Your task to perform on an android device: Go to CNN.com Image 0: 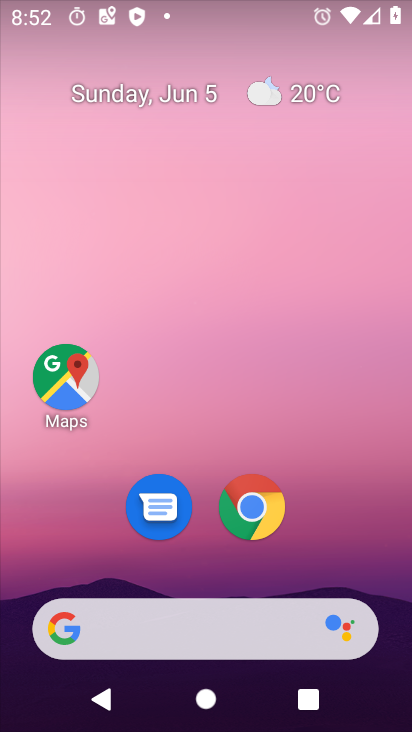
Step 0: drag from (321, 547) to (245, 56)
Your task to perform on an android device: Go to CNN.com Image 1: 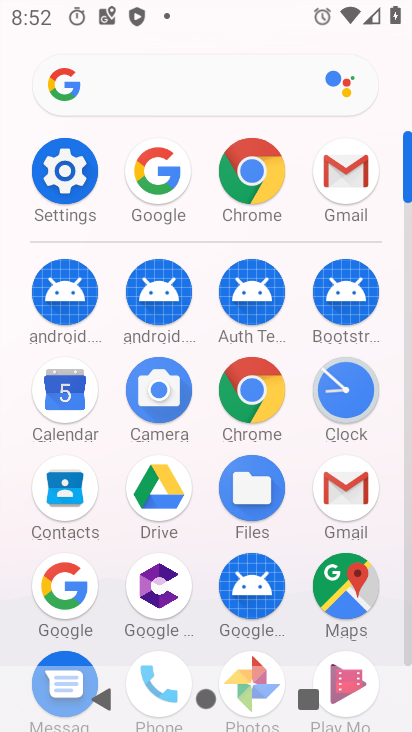
Step 1: drag from (8, 557) to (19, 260)
Your task to perform on an android device: Go to CNN.com Image 2: 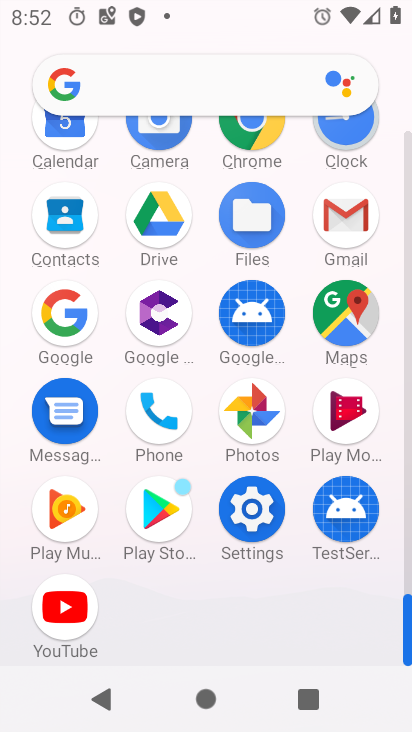
Step 2: drag from (26, 216) to (10, 424)
Your task to perform on an android device: Go to CNN.com Image 3: 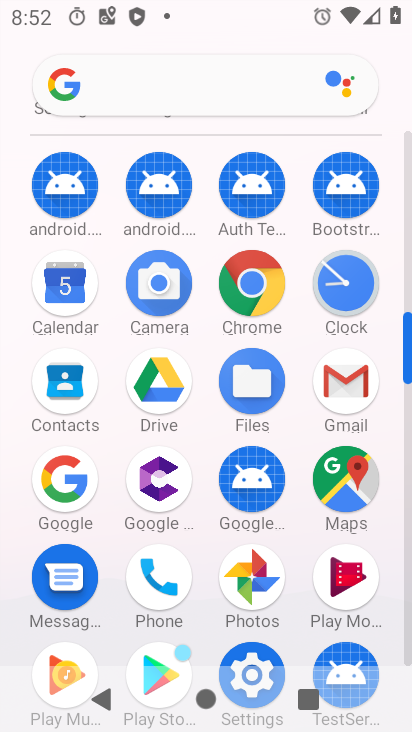
Step 3: click (249, 276)
Your task to perform on an android device: Go to CNN.com Image 4: 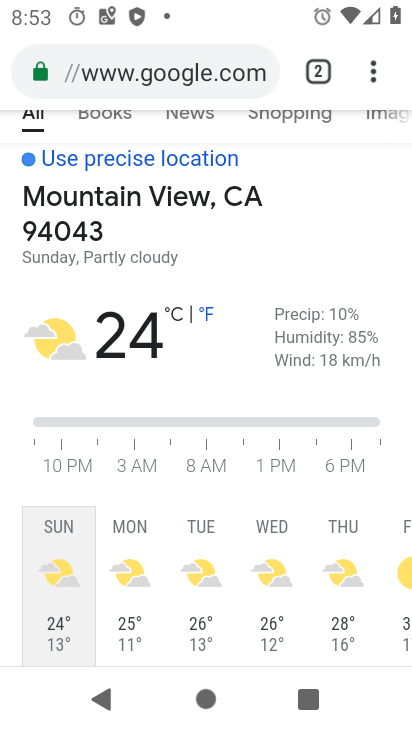
Step 4: click (188, 68)
Your task to perform on an android device: Go to CNN.com Image 5: 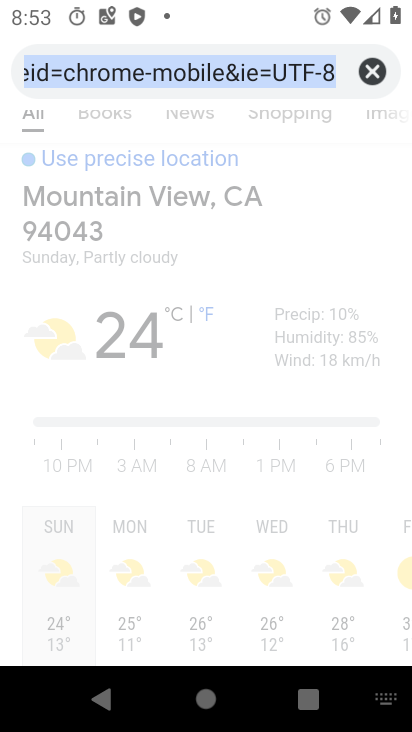
Step 5: click (371, 76)
Your task to perform on an android device: Go to CNN.com Image 6: 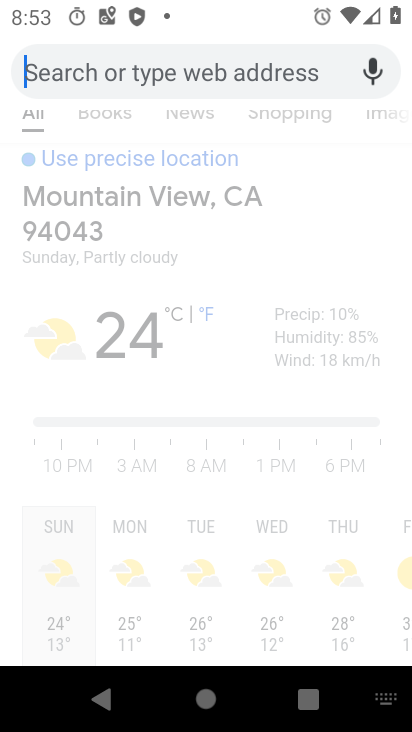
Step 6: type "CNN.com"
Your task to perform on an android device: Go to CNN.com Image 7: 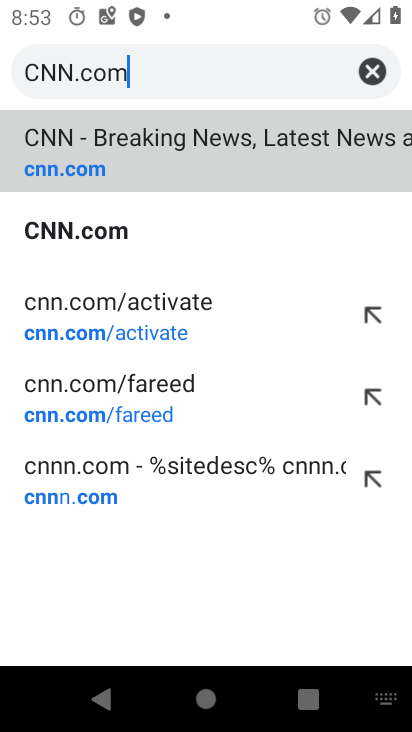
Step 7: type ""
Your task to perform on an android device: Go to CNN.com Image 8: 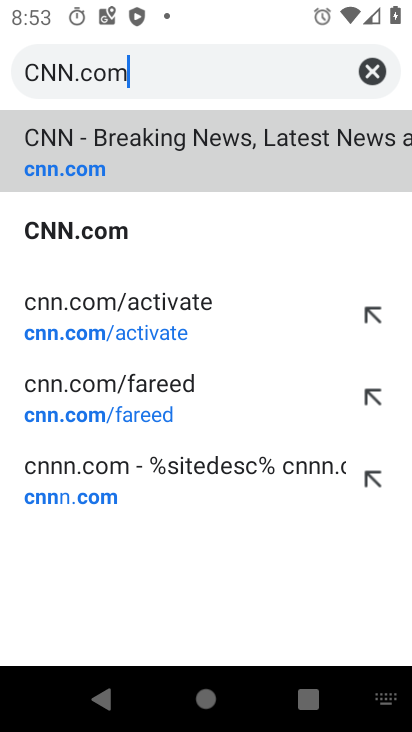
Step 8: click (154, 149)
Your task to perform on an android device: Go to CNN.com Image 9: 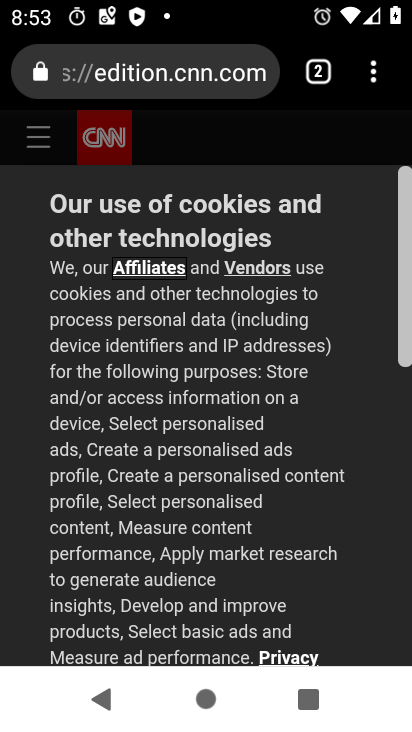
Step 9: drag from (297, 563) to (297, 202)
Your task to perform on an android device: Go to CNN.com Image 10: 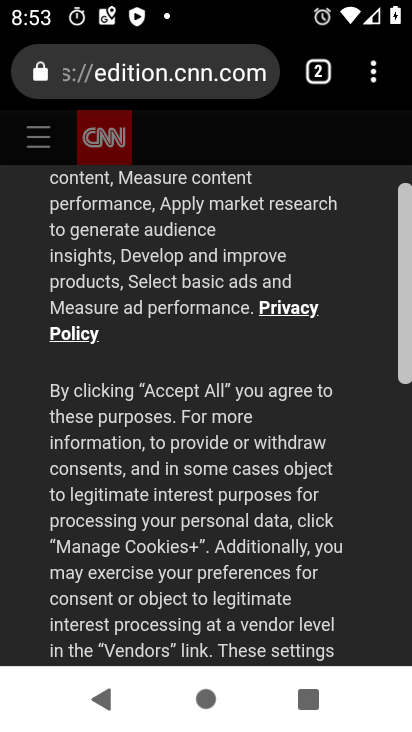
Step 10: drag from (261, 579) to (287, 224)
Your task to perform on an android device: Go to CNN.com Image 11: 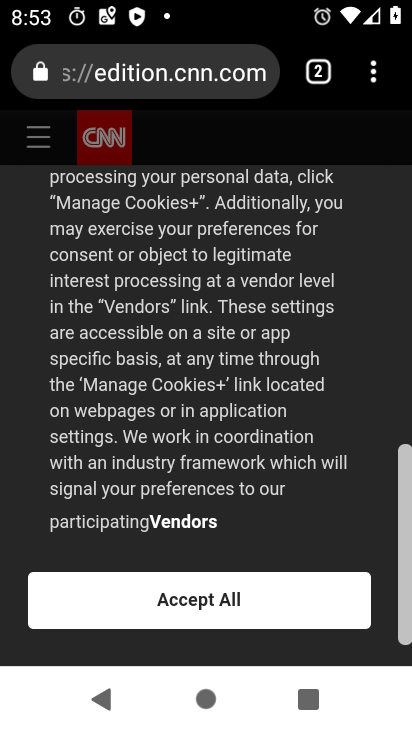
Step 11: click (223, 609)
Your task to perform on an android device: Go to CNN.com Image 12: 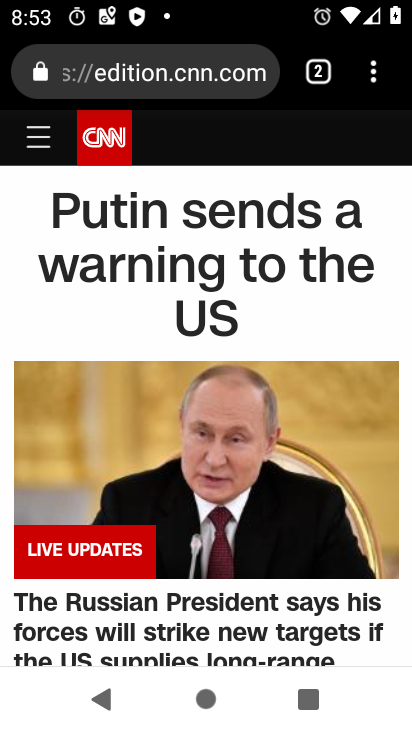
Step 12: task complete